Your task to perform on an android device: set the timer Image 0: 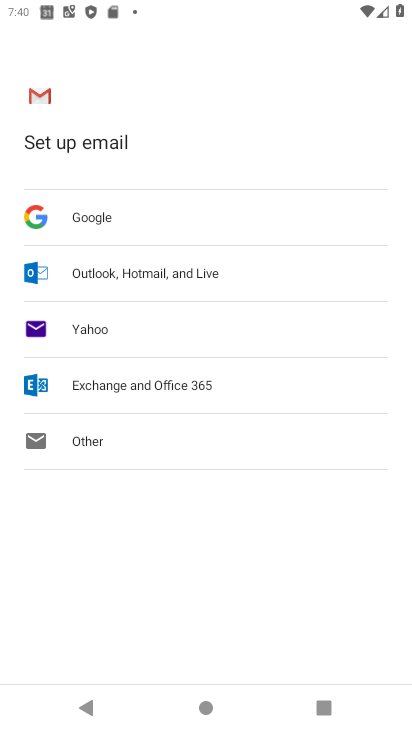
Step 0: press back button
Your task to perform on an android device: set the timer Image 1: 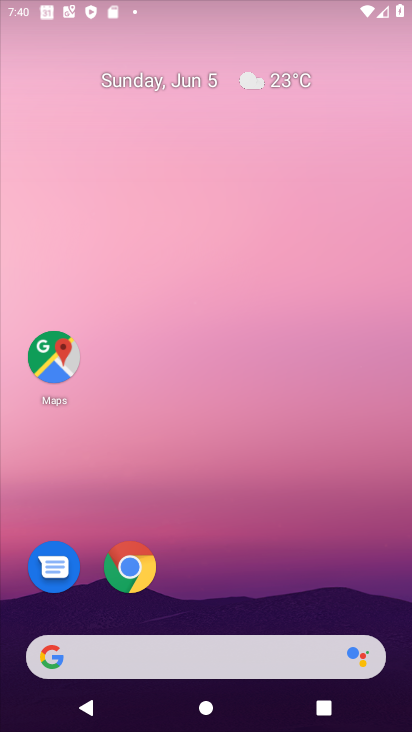
Step 1: drag from (400, 648) to (252, 6)
Your task to perform on an android device: set the timer Image 2: 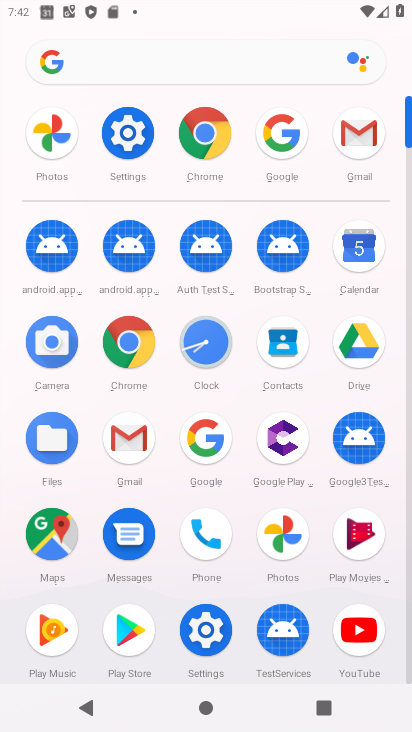
Step 2: click (221, 344)
Your task to perform on an android device: set the timer Image 3: 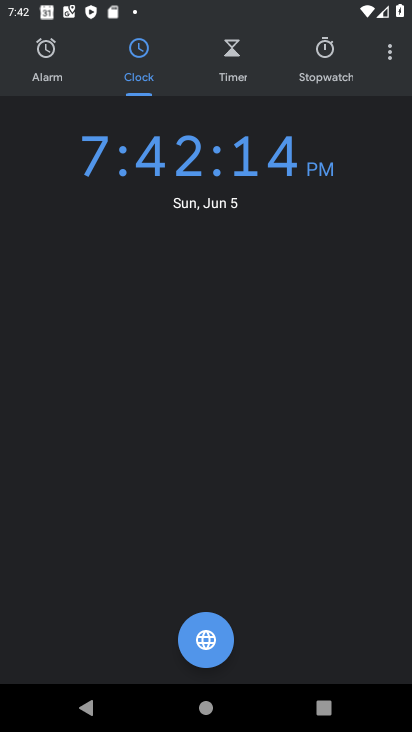
Step 3: click (378, 51)
Your task to perform on an android device: set the timer Image 4: 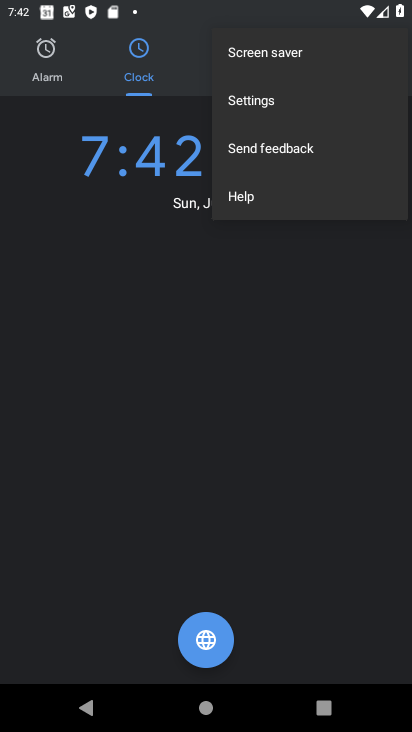
Step 4: click (264, 111)
Your task to perform on an android device: set the timer Image 5: 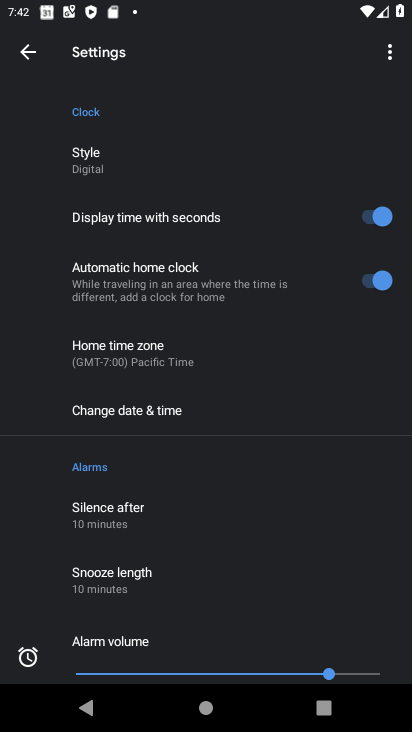
Step 5: click (148, 376)
Your task to perform on an android device: set the timer Image 6: 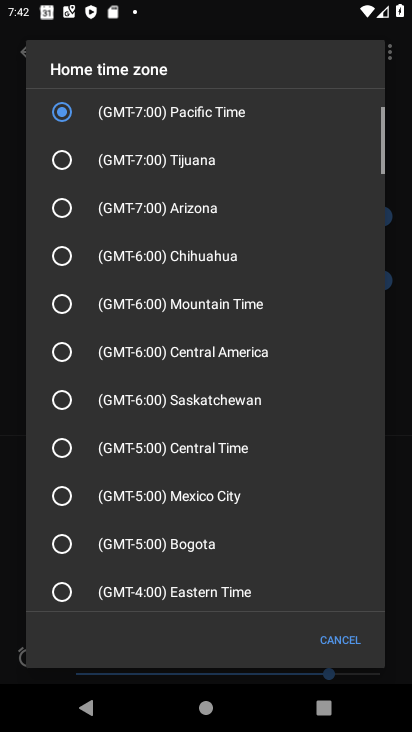
Step 6: click (175, 362)
Your task to perform on an android device: set the timer Image 7: 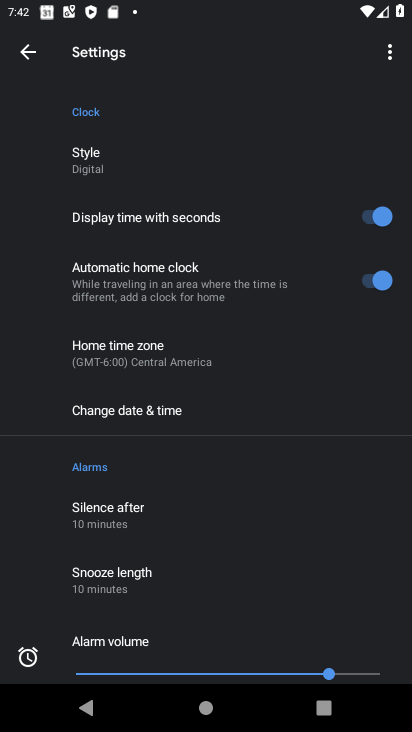
Step 7: task complete